Your task to perform on an android device: toggle priority inbox in the gmail app Image 0: 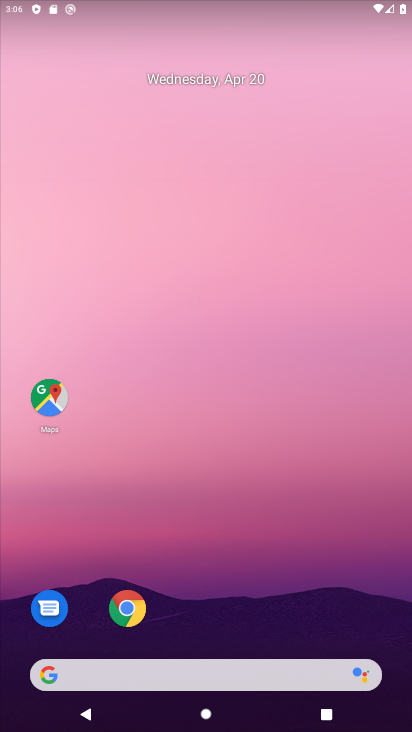
Step 0: drag from (196, 568) to (193, 192)
Your task to perform on an android device: toggle priority inbox in the gmail app Image 1: 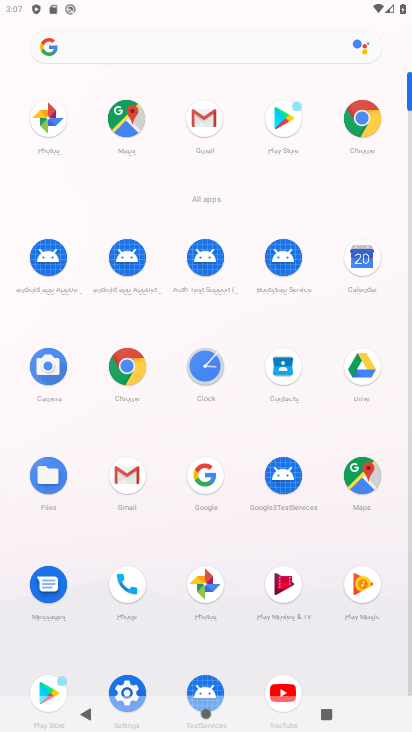
Step 1: click (124, 481)
Your task to perform on an android device: toggle priority inbox in the gmail app Image 2: 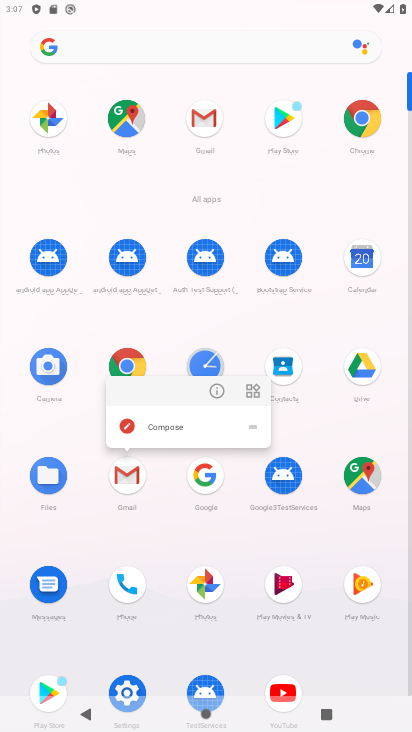
Step 2: click (124, 476)
Your task to perform on an android device: toggle priority inbox in the gmail app Image 3: 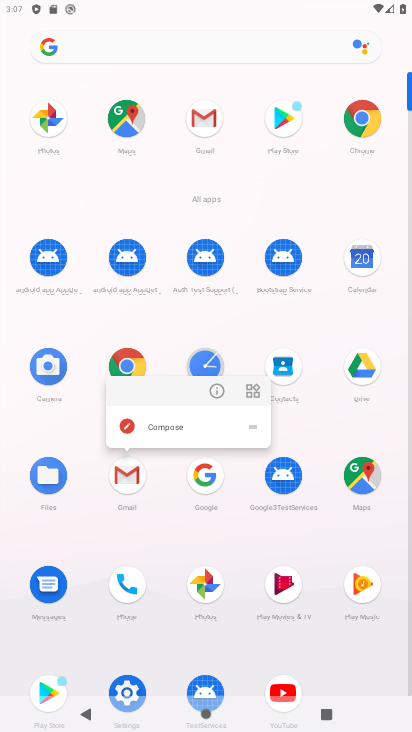
Step 3: click (124, 471)
Your task to perform on an android device: toggle priority inbox in the gmail app Image 4: 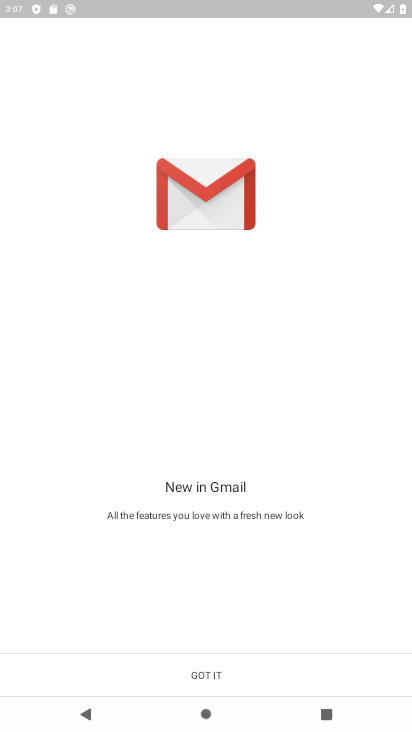
Step 4: click (201, 668)
Your task to perform on an android device: toggle priority inbox in the gmail app Image 5: 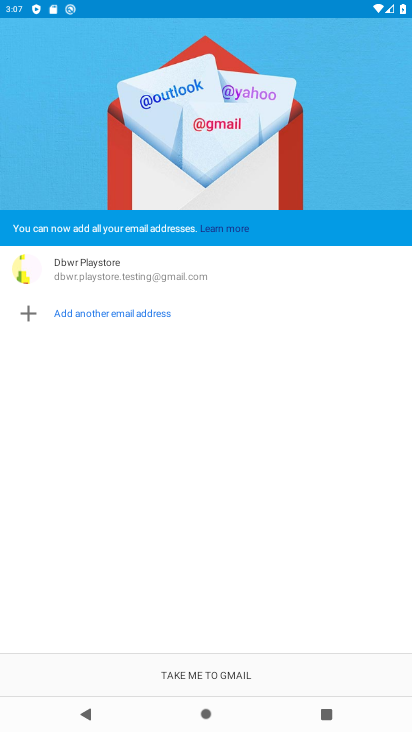
Step 5: click (235, 674)
Your task to perform on an android device: toggle priority inbox in the gmail app Image 6: 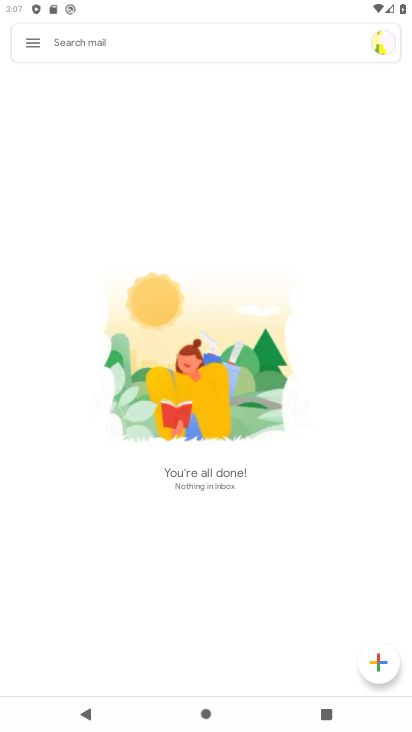
Step 6: click (32, 43)
Your task to perform on an android device: toggle priority inbox in the gmail app Image 7: 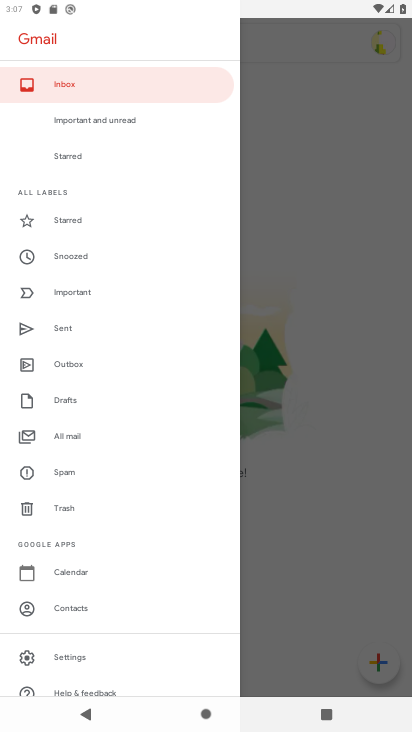
Step 7: click (68, 656)
Your task to perform on an android device: toggle priority inbox in the gmail app Image 8: 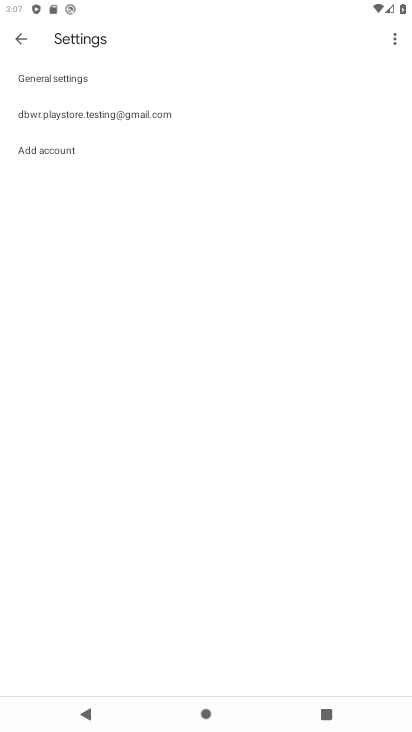
Step 8: click (53, 111)
Your task to perform on an android device: toggle priority inbox in the gmail app Image 9: 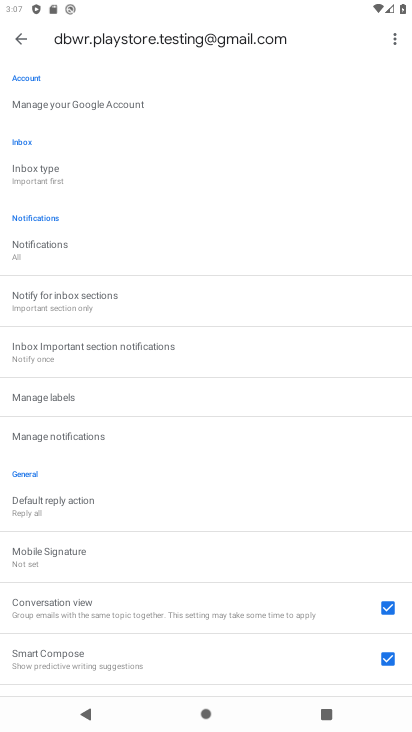
Step 9: click (35, 175)
Your task to perform on an android device: toggle priority inbox in the gmail app Image 10: 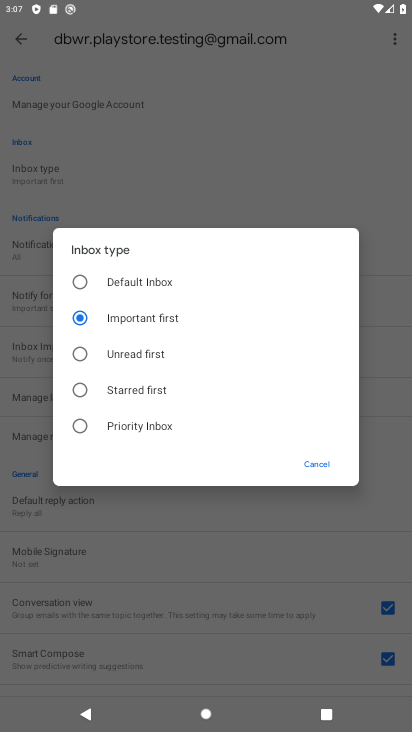
Step 10: click (102, 425)
Your task to perform on an android device: toggle priority inbox in the gmail app Image 11: 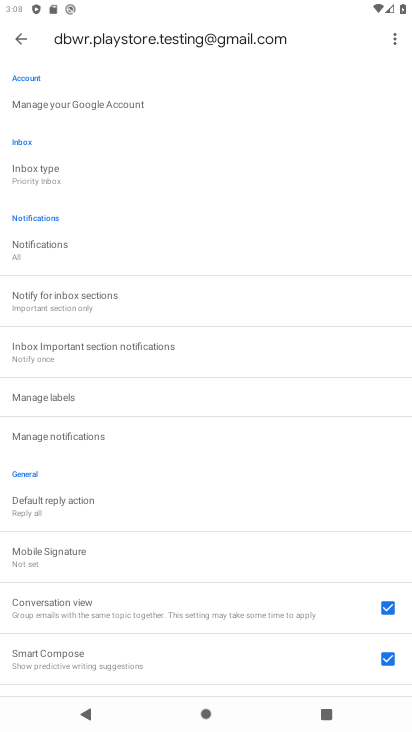
Step 11: task complete